Your task to perform on an android device: Go to calendar. Show me events next week Image 0: 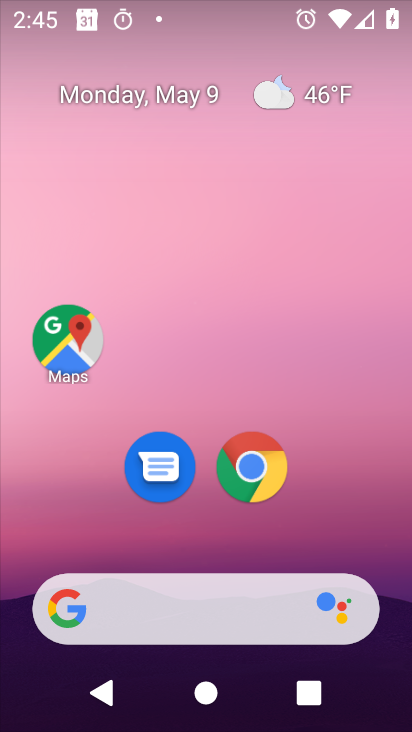
Step 0: drag from (336, 481) to (308, 109)
Your task to perform on an android device: Go to calendar. Show me events next week Image 1: 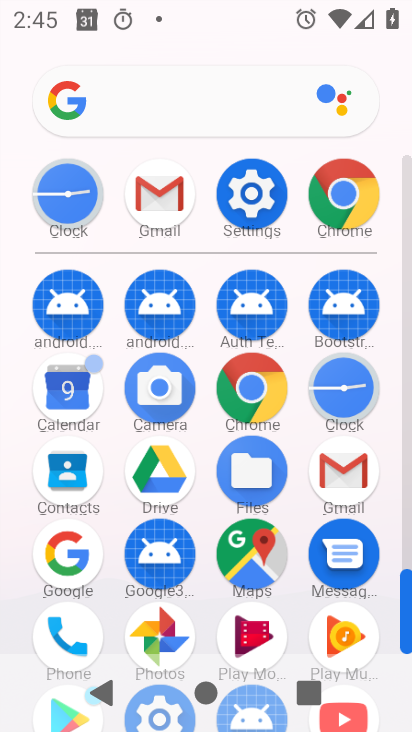
Step 1: click (55, 391)
Your task to perform on an android device: Go to calendar. Show me events next week Image 2: 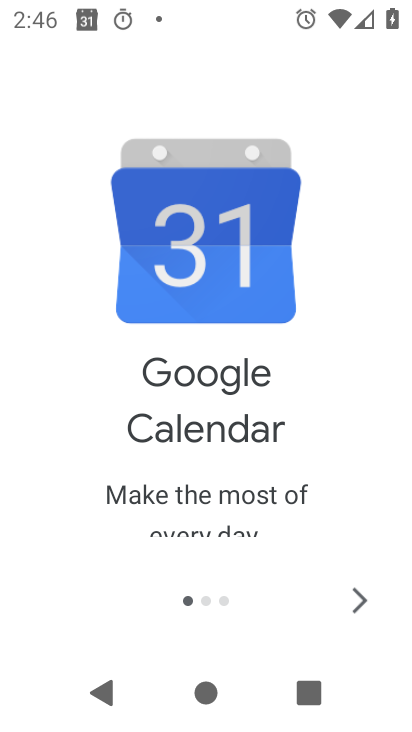
Step 2: click (362, 595)
Your task to perform on an android device: Go to calendar. Show me events next week Image 3: 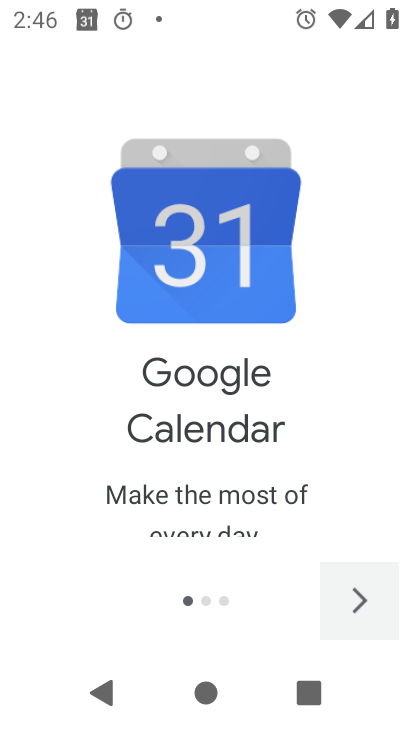
Step 3: click (361, 594)
Your task to perform on an android device: Go to calendar. Show me events next week Image 4: 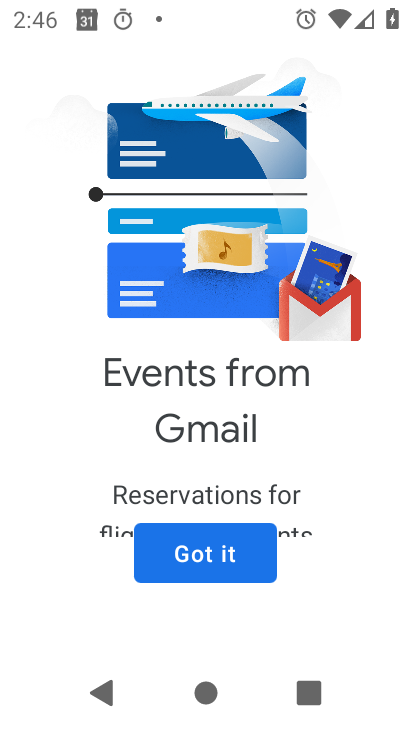
Step 4: click (248, 559)
Your task to perform on an android device: Go to calendar. Show me events next week Image 5: 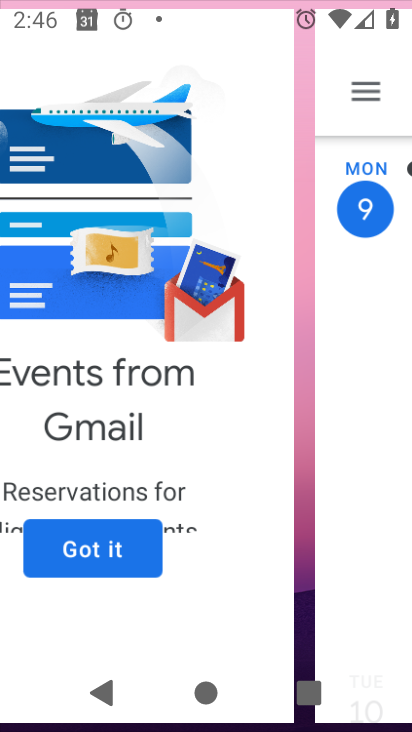
Step 5: click (248, 564)
Your task to perform on an android device: Go to calendar. Show me events next week Image 6: 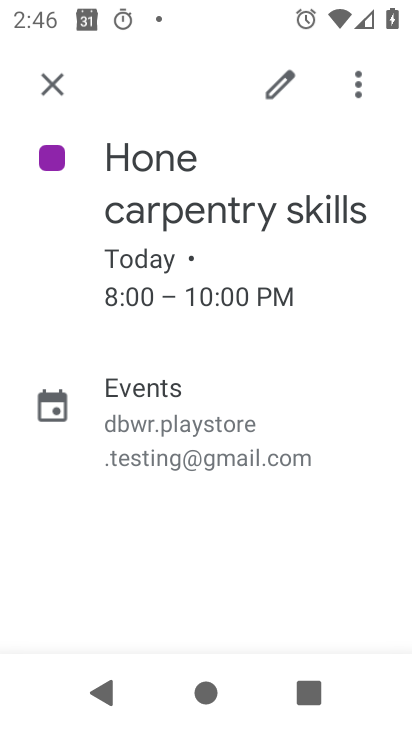
Step 6: click (45, 82)
Your task to perform on an android device: Go to calendar. Show me events next week Image 7: 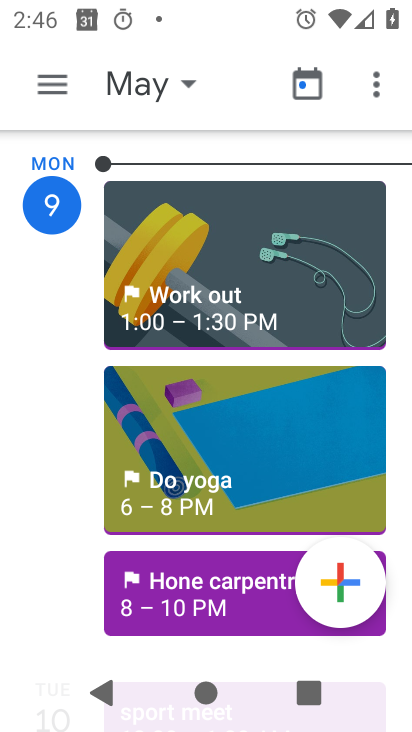
Step 7: click (80, 84)
Your task to perform on an android device: Go to calendar. Show me events next week Image 8: 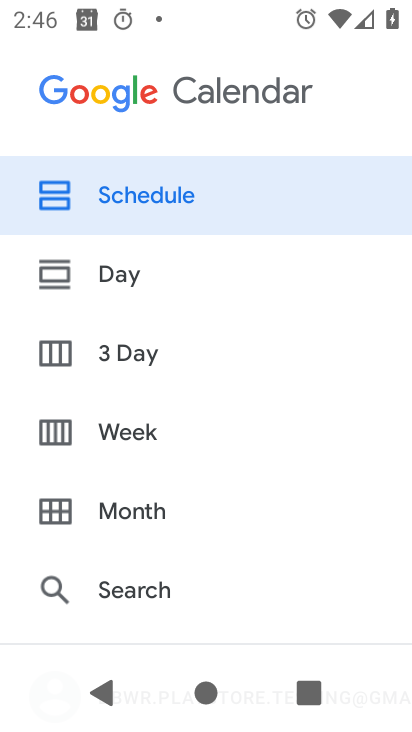
Step 8: click (127, 187)
Your task to perform on an android device: Go to calendar. Show me events next week Image 9: 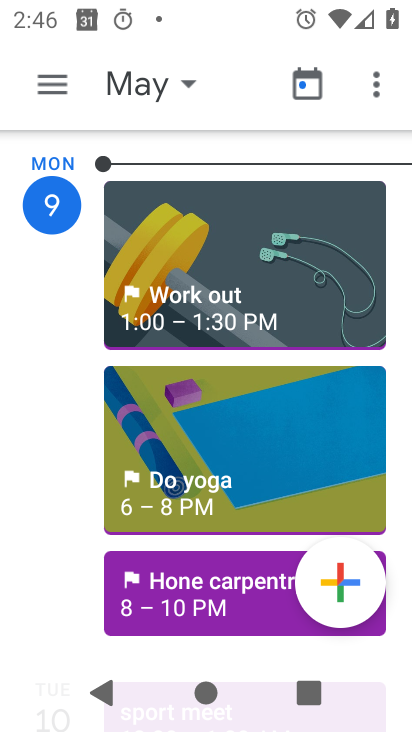
Step 9: click (167, 73)
Your task to perform on an android device: Go to calendar. Show me events next week Image 10: 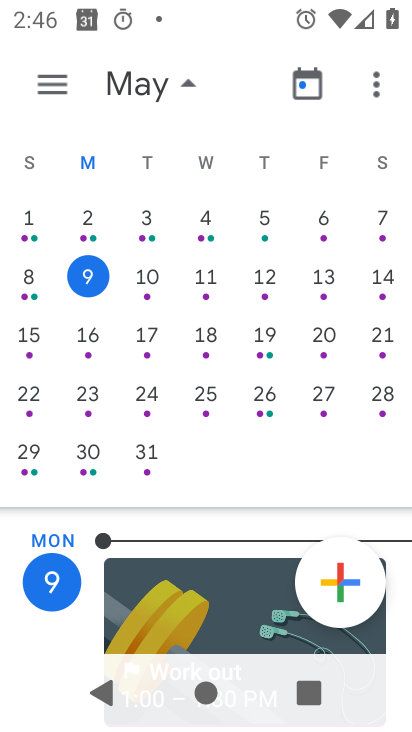
Step 10: click (88, 335)
Your task to perform on an android device: Go to calendar. Show me events next week Image 11: 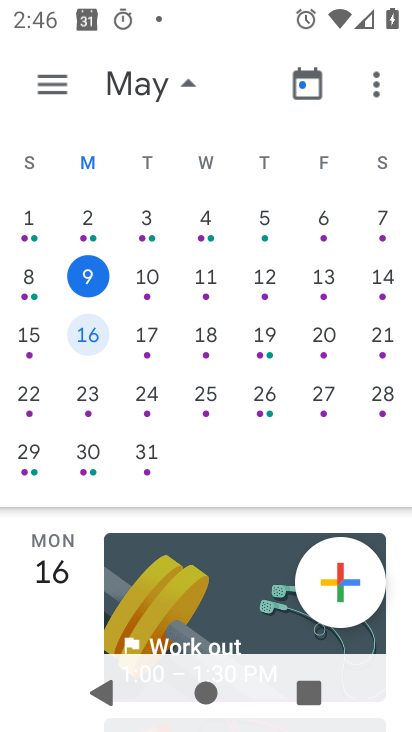
Step 11: task complete